Your task to perform on an android device: How much does a 3 bedroom apartment rent for in Boston? Image 0: 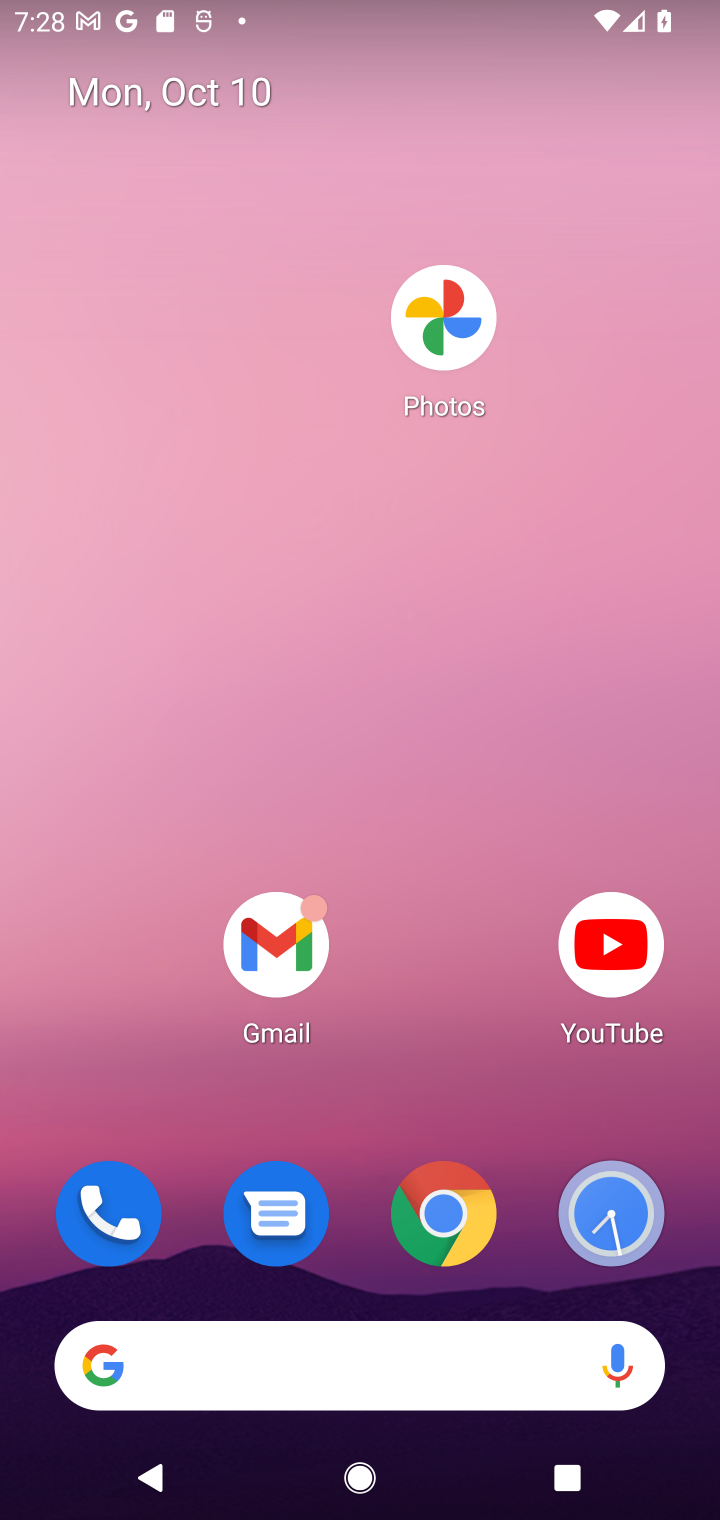
Step 0: click (282, 1386)
Your task to perform on an android device: How much does a 3 bedroom apartment rent for in Boston? Image 1: 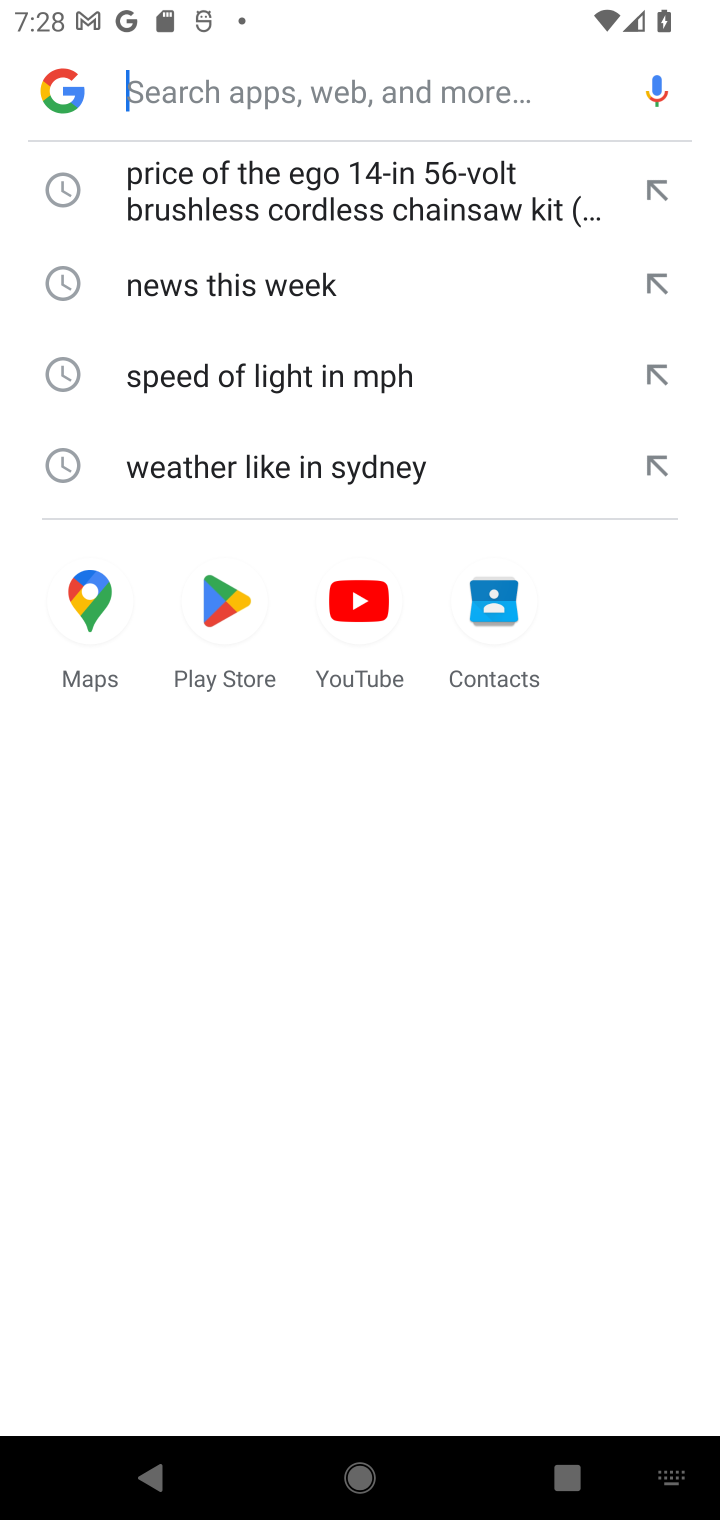
Step 1: type "3 bedroom apartment rent for in Boston"
Your task to perform on an android device: How much does a 3 bedroom apartment rent for in Boston? Image 2: 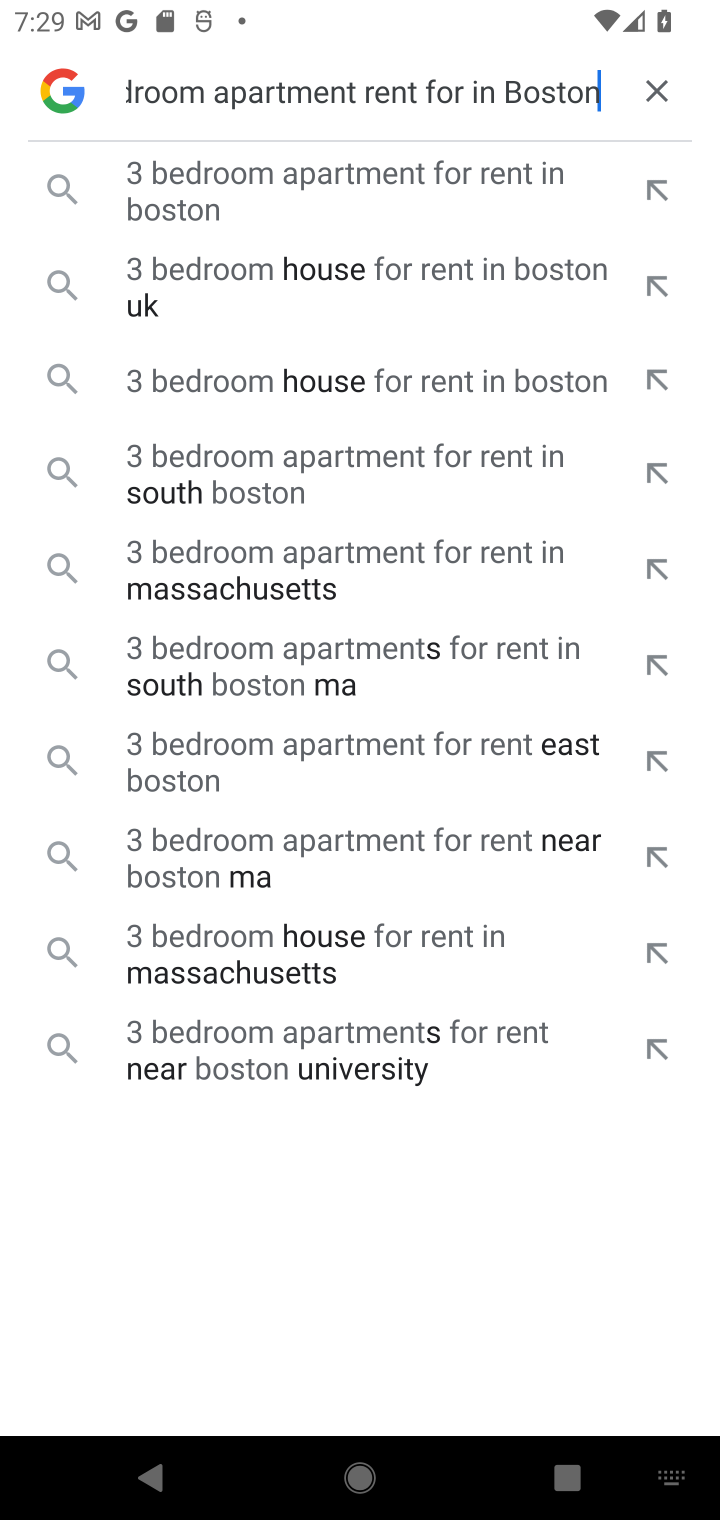
Step 2: click (412, 207)
Your task to perform on an android device: How much does a 3 bedroom apartment rent for in Boston? Image 3: 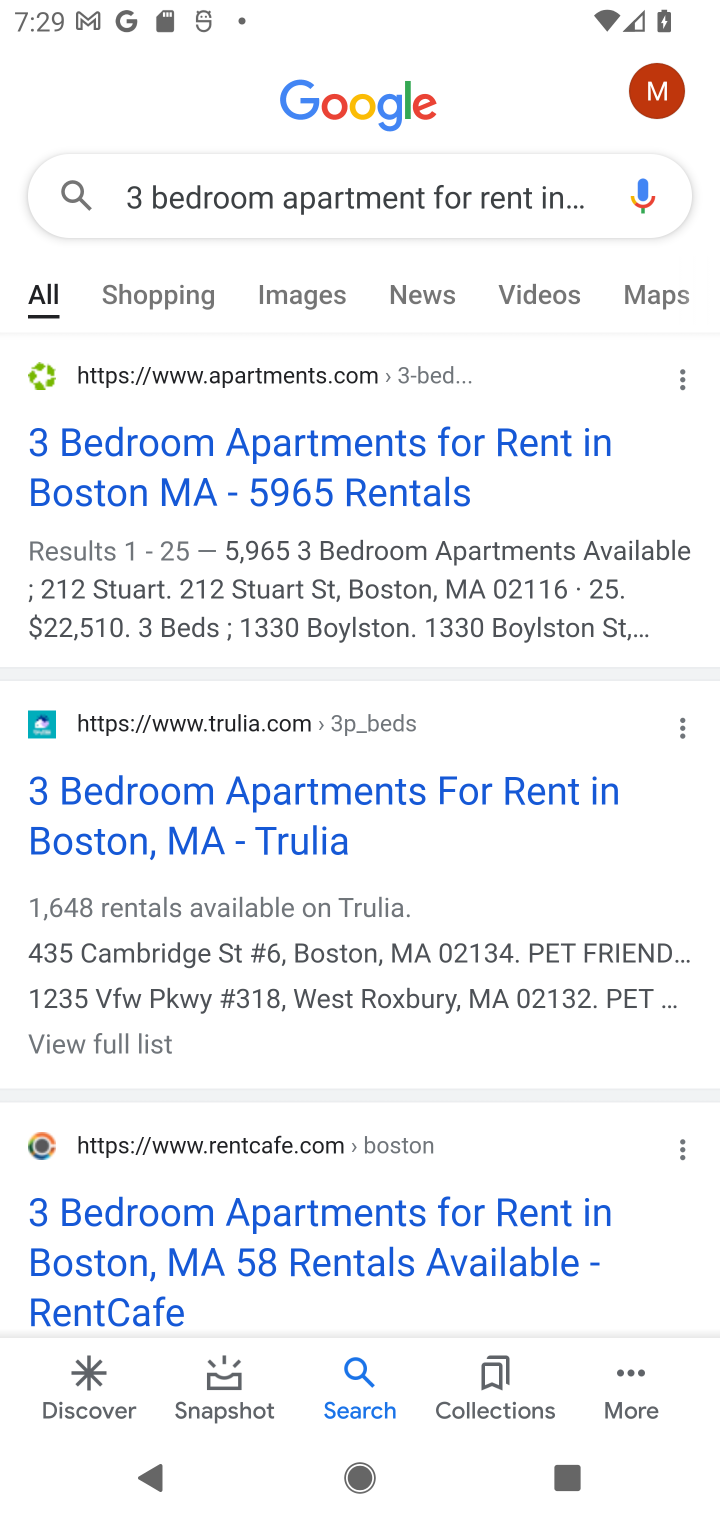
Step 3: click (416, 466)
Your task to perform on an android device: How much does a 3 bedroom apartment rent for in Boston? Image 4: 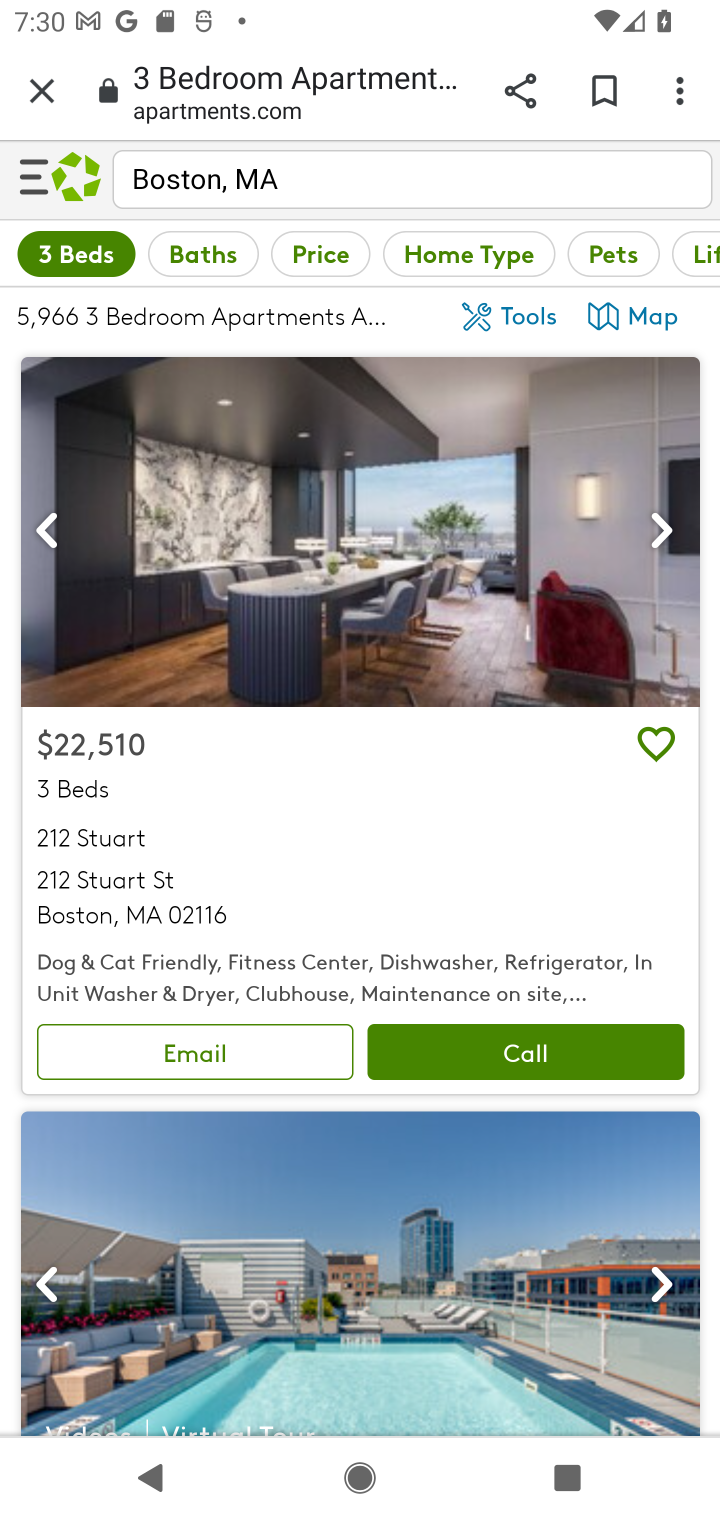
Step 4: task complete